Your task to perform on an android device: Open the phone app and click the voicemail tab. Image 0: 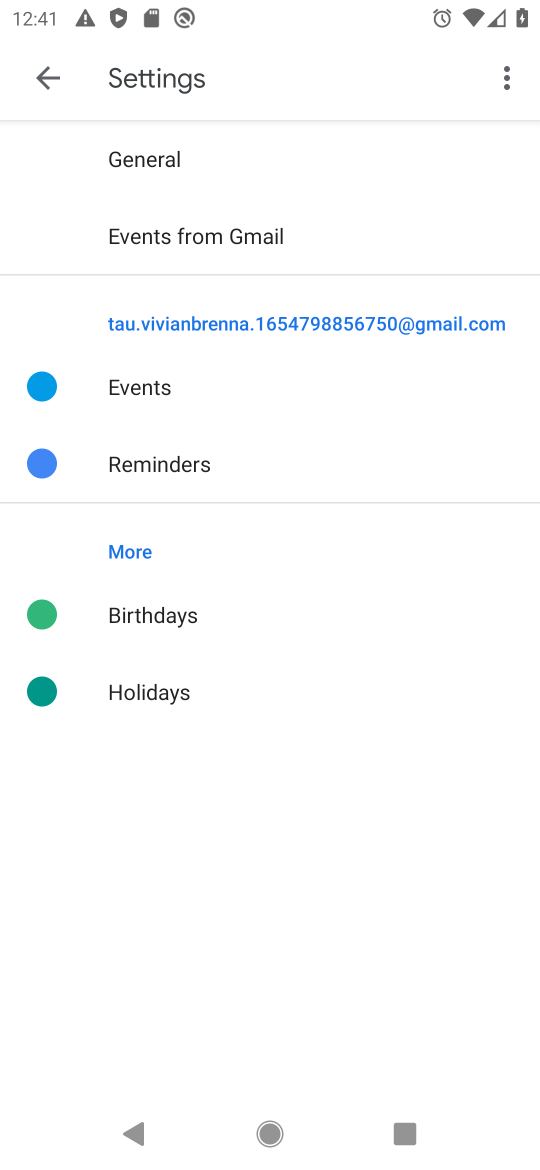
Step 0: press home button
Your task to perform on an android device: Open the phone app and click the voicemail tab. Image 1: 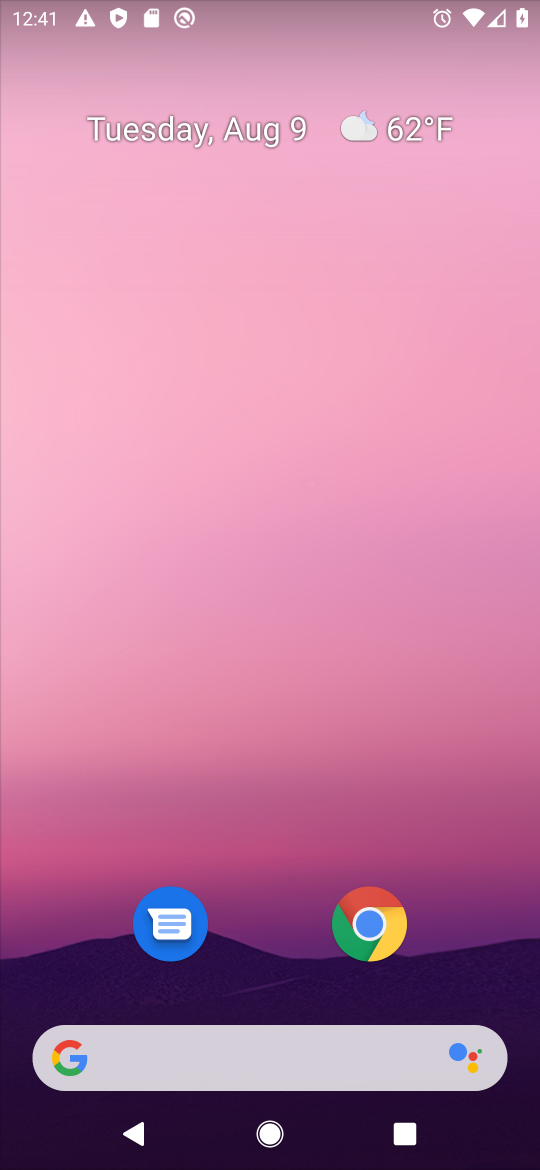
Step 1: drag from (271, 1006) to (293, 123)
Your task to perform on an android device: Open the phone app and click the voicemail tab. Image 2: 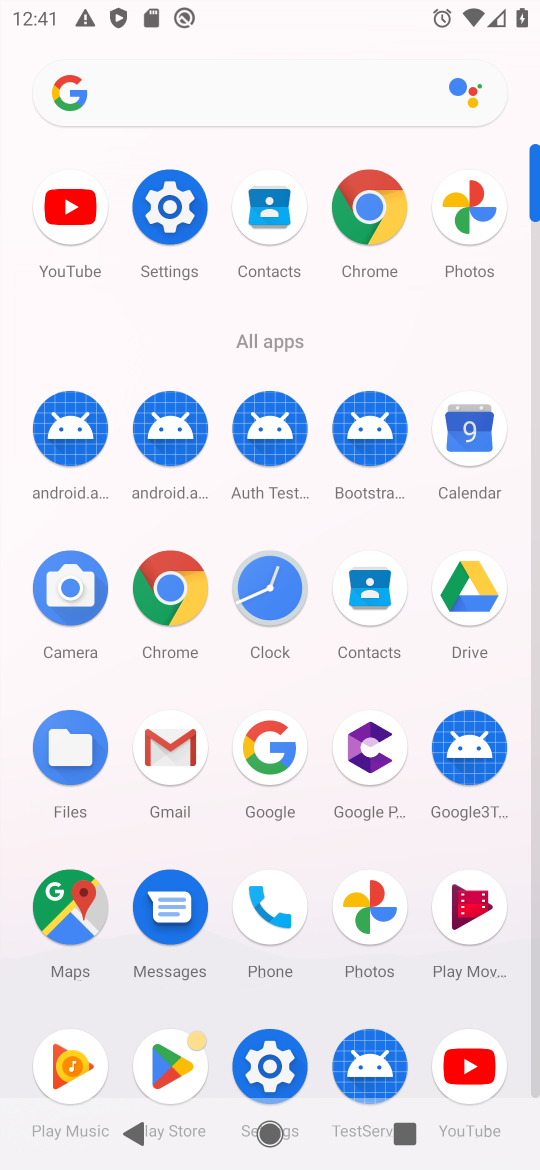
Step 2: click (279, 904)
Your task to perform on an android device: Open the phone app and click the voicemail tab. Image 3: 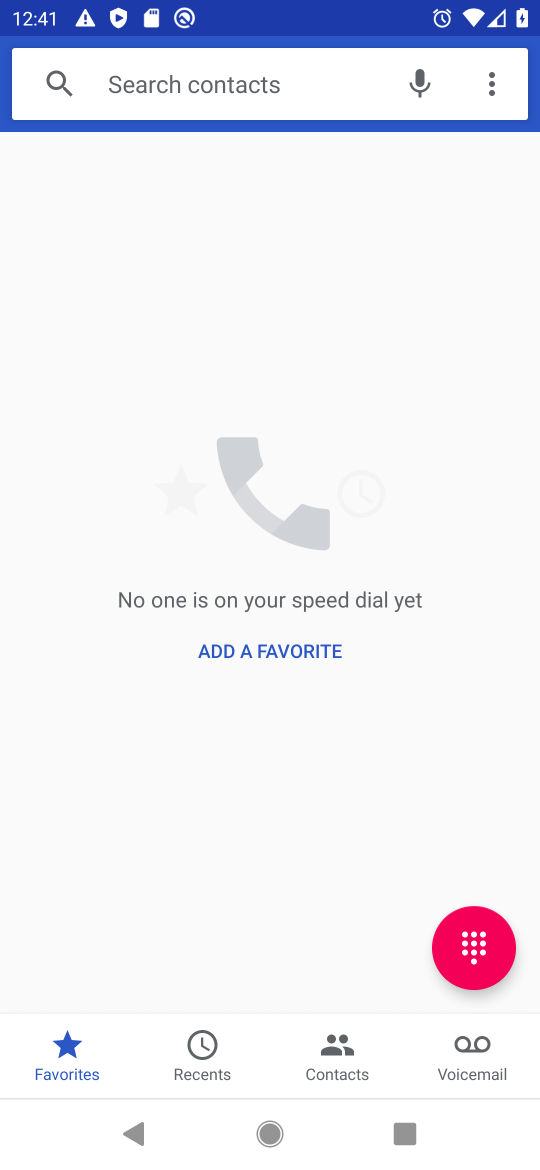
Step 3: click (492, 1040)
Your task to perform on an android device: Open the phone app and click the voicemail tab. Image 4: 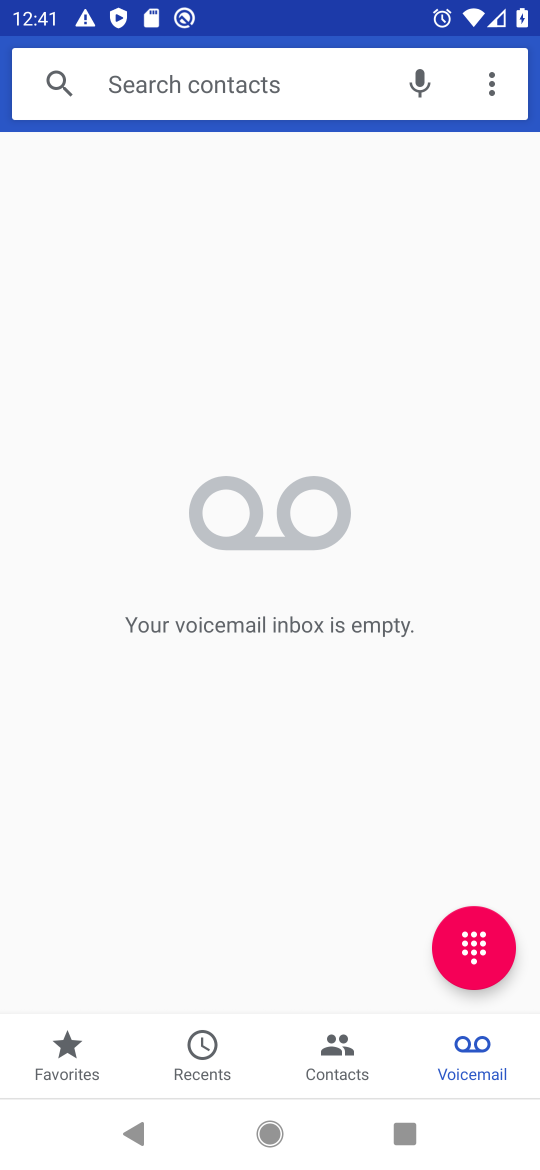
Step 4: task complete